Your task to perform on an android device: Open calendar and show me the fourth week of next month Image 0: 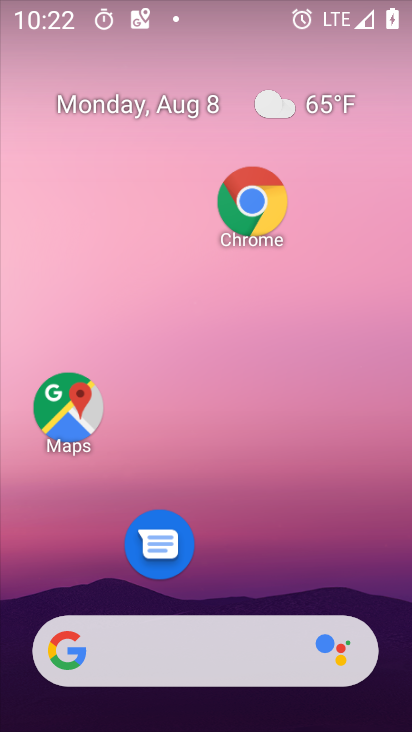
Step 0: drag from (215, 589) to (216, 93)
Your task to perform on an android device: Open calendar and show me the fourth week of next month Image 1: 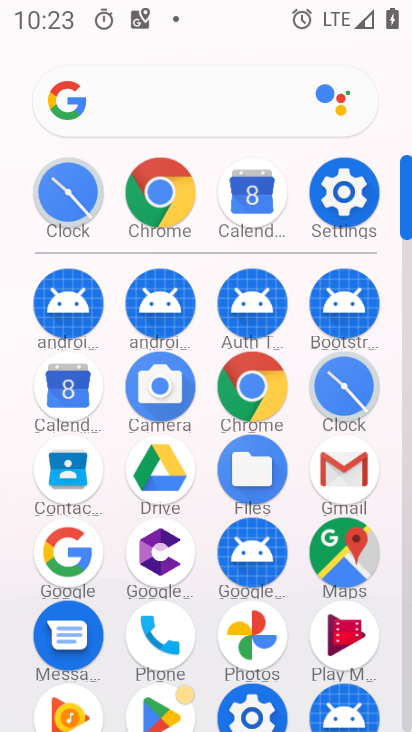
Step 1: click (67, 384)
Your task to perform on an android device: Open calendar and show me the fourth week of next month Image 2: 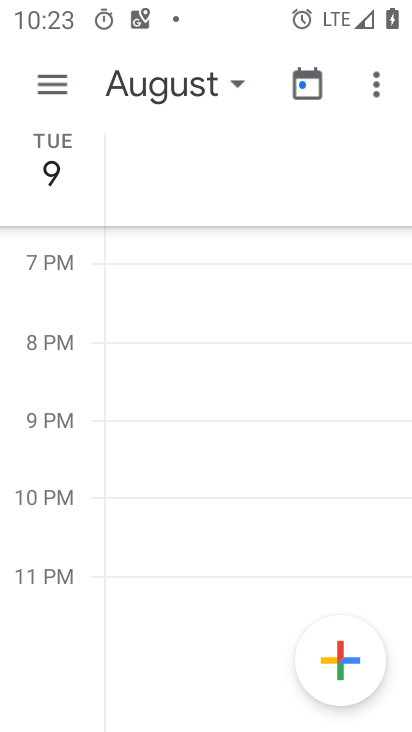
Step 2: click (233, 77)
Your task to perform on an android device: Open calendar and show me the fourth week of next month Image 3: 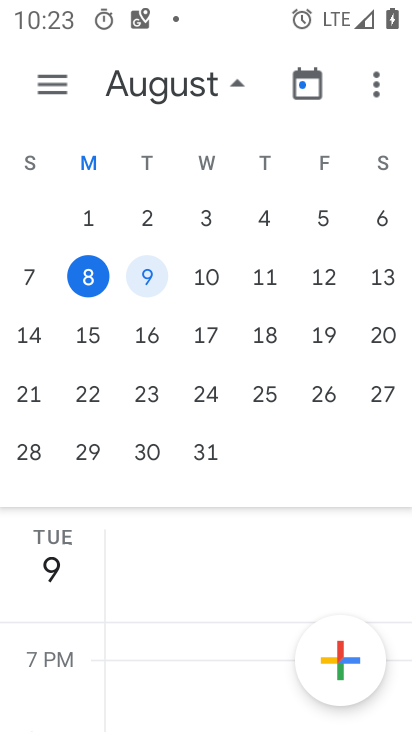
Step 3: drag from (381, 333) to (42, 342)
Your task to perform on an android device: Open calendar and show me the fourth week of next month Image 4: 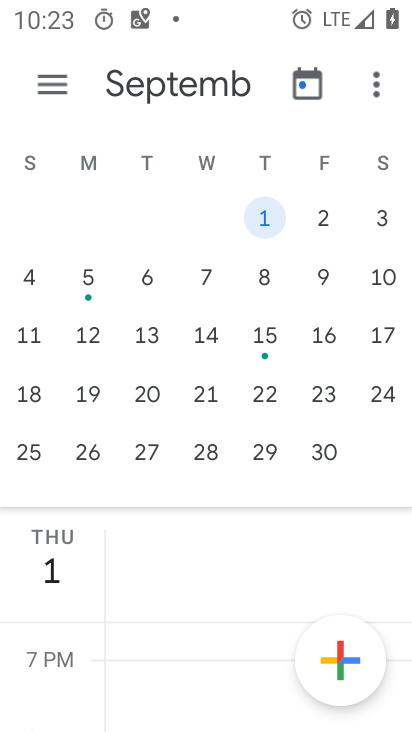
Step 4: click (26, 452)
Your task to perform on an android device: Open calendar and show me the fourth week of next month Image 5: 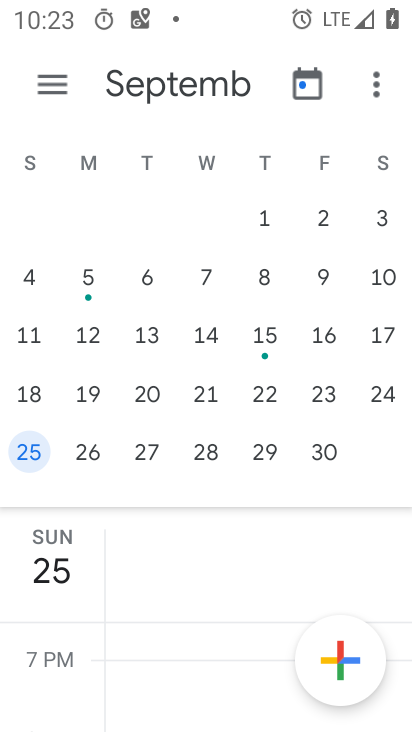
Step 5: click (238, 87)
Your task to perform on an android device: Open calendar and show me the fourth week of next month Image 6: 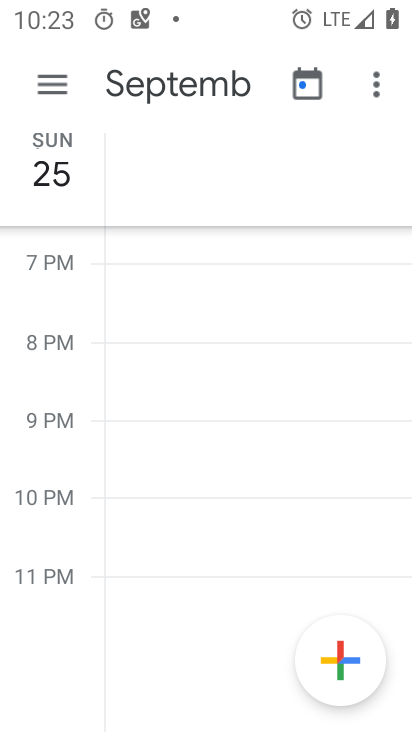
Step 6: click (52, 87)
Your task to perform on an android device: Open calendar and show me the fourth week of next month Image 7: 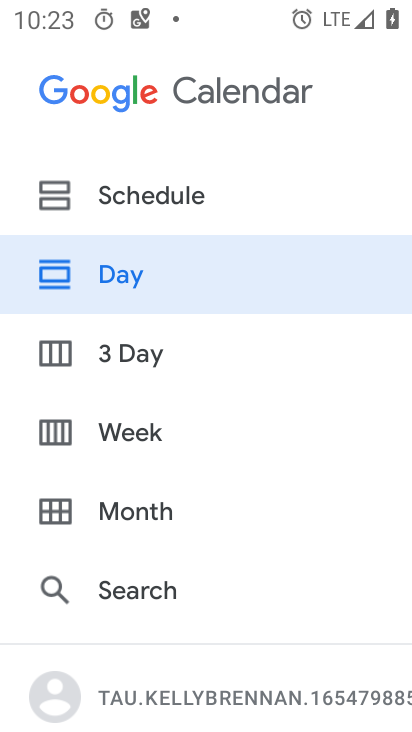
Step 7: click (96, 425)
Your task to perform on an android device: Open calendar and show me the fourth week of next month Image 8: 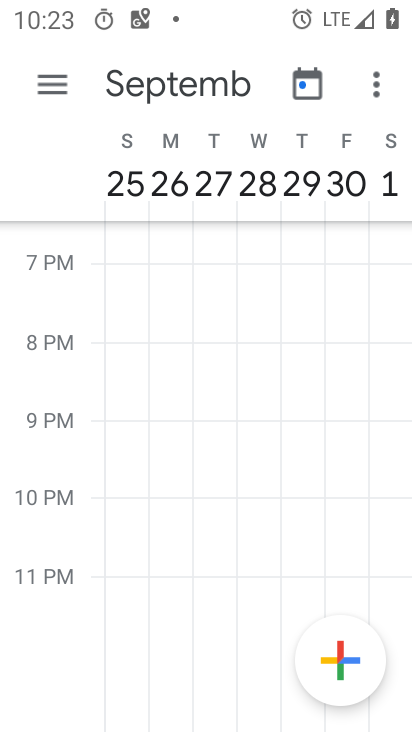
Step 8: click (121, 180)
Your task to perform on an android device: Open calendar and show me the fourth week of next month Image 9: 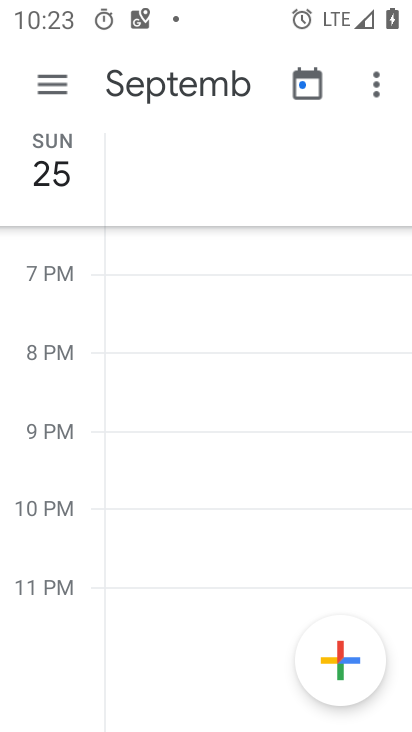
Step 9: click (84, 180)
Your task to perform on an android device: Open calendar and show me the fourth week of next month Image 10: 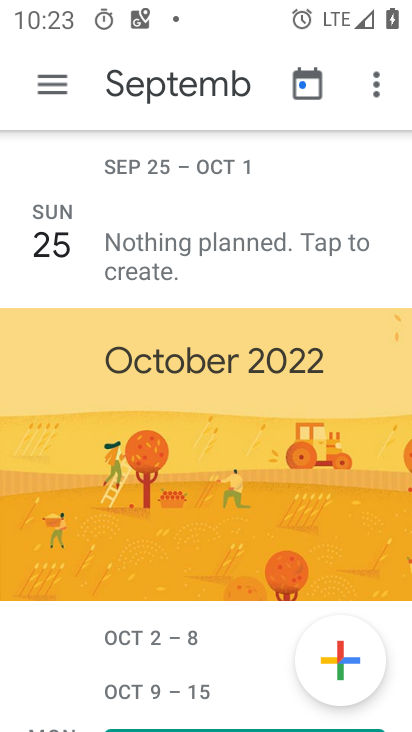
Step 10: task complete